Your task to perform on an android device: Open Yahoo.com Image 0: 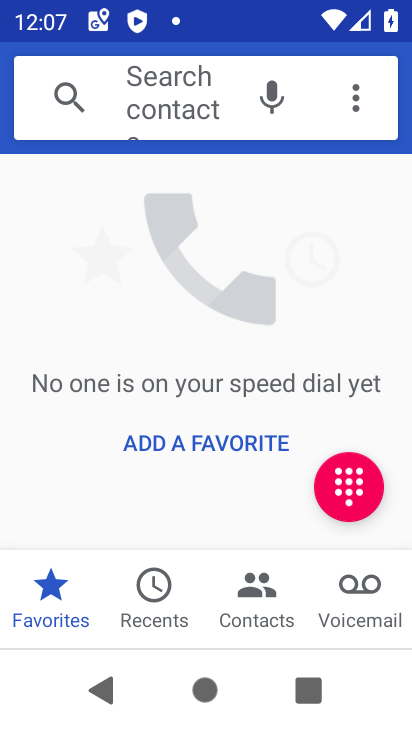
Step 0: press home button
Your task to perform on an android device: Open Yahoo.com Image 1: 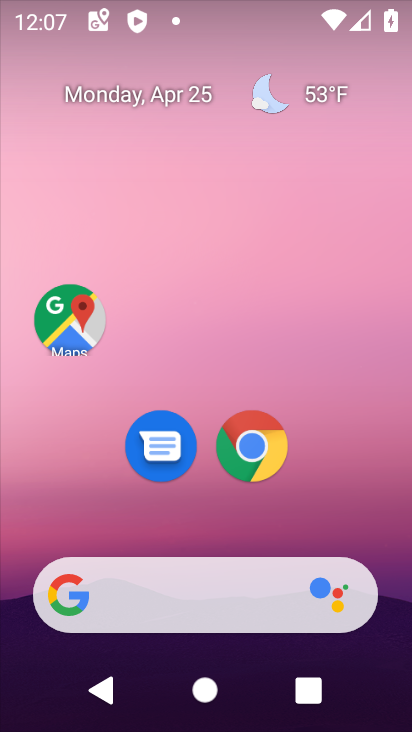
Step 1: click (257, 445)
Your task to perform on an android device: Open Yahoo.com Image 2: 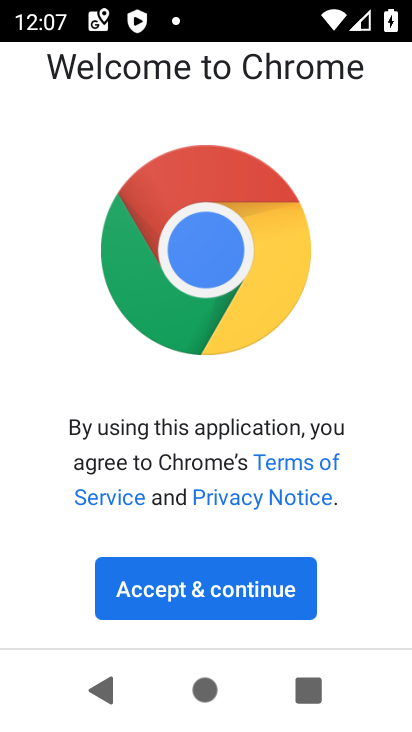
Step 2: click (183, 588)
Your task to perform on an android device: Open Yahoo.com Image 3: 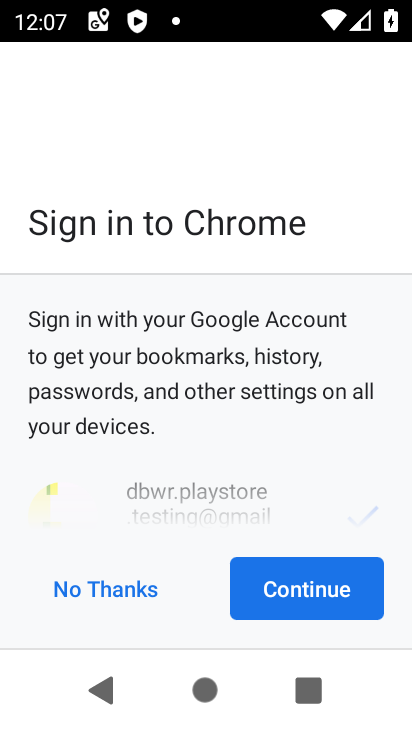
Step 3: click (291, 579)
Your task to perform on an android device: Open Yahoo.com Image 4: 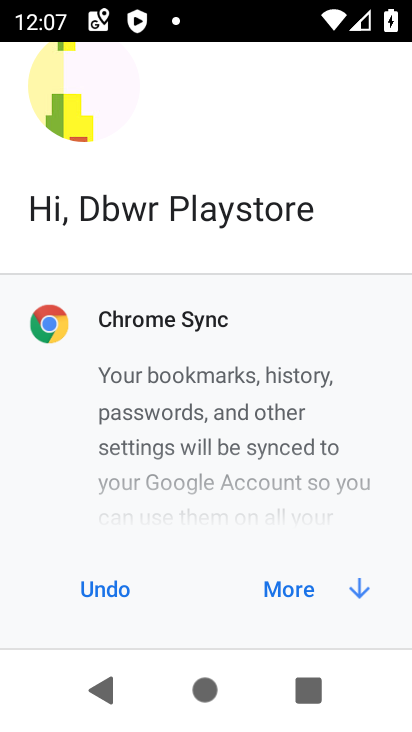
Step 4: click (301, 591)
Your task to perform on an android device: Open Yahoo.com Image 5: 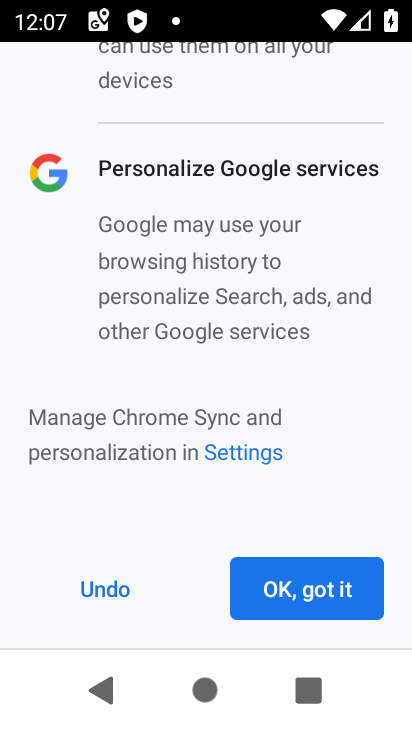
Step 5: click (300, 599)
Your task to perform on an android device: Open Yahoo.com Image 6: 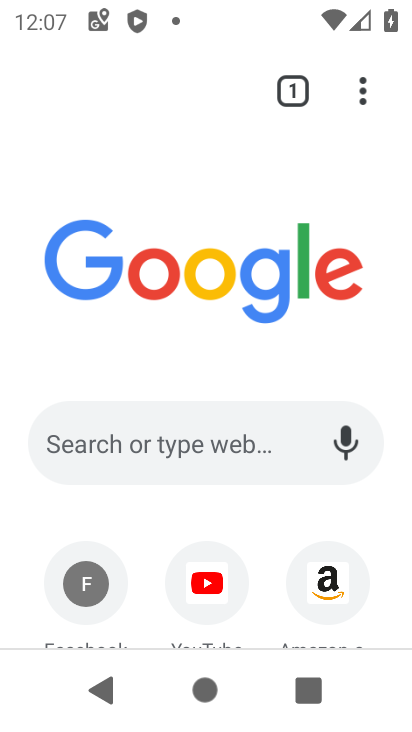
Step 6: click (177, 452)
Your task to perform on an android device: Open Yahoo.com Image 7: 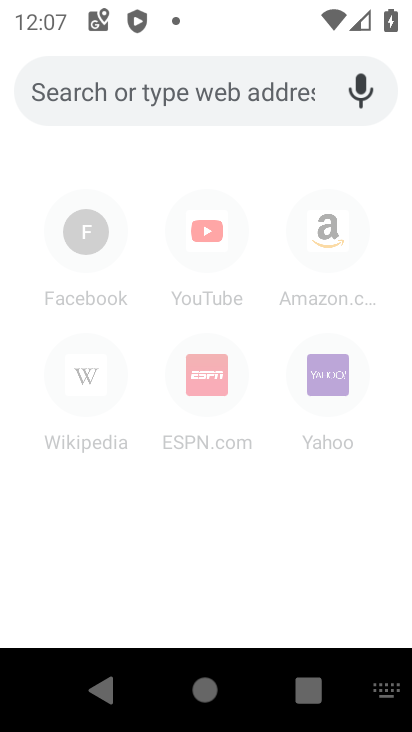
Step 7: type "yahoo.com"
Your task to perform on an android device: Open Yahoo.com Image 8: 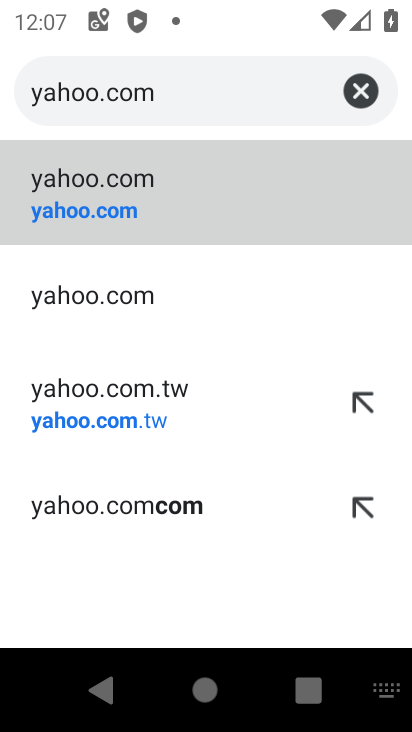
Step 8: click (199, 188)
Your task to perform on an android device: Open Yahoo.com Image 9: 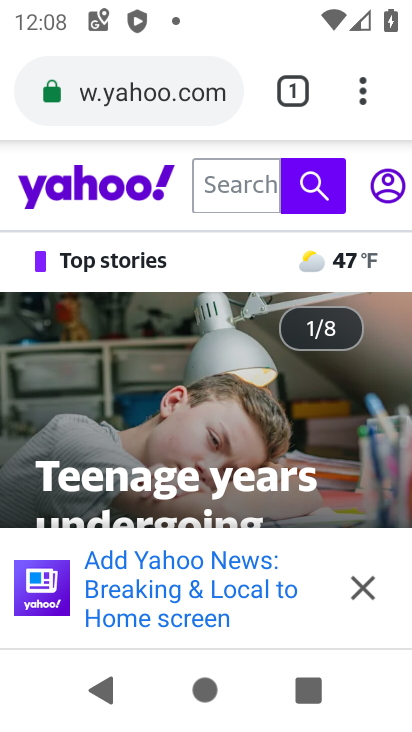
Step 9: task complete